Your task to perform on an android device: turn on wifi Image 0: 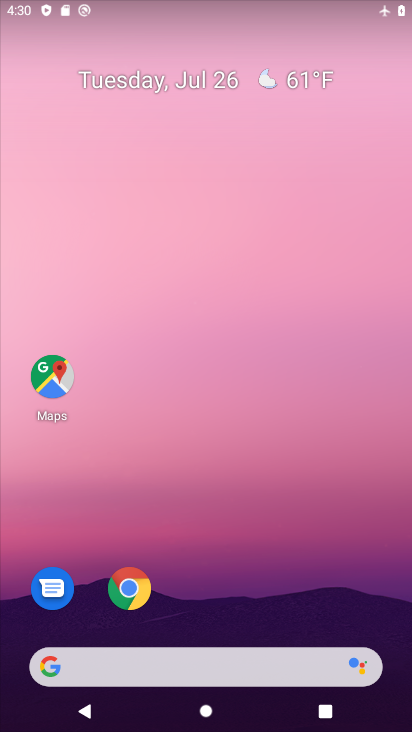
Step 0: drag from (253, 595) to (315, 83)
Your task to perform on an android device: turn on wifi Image 1: 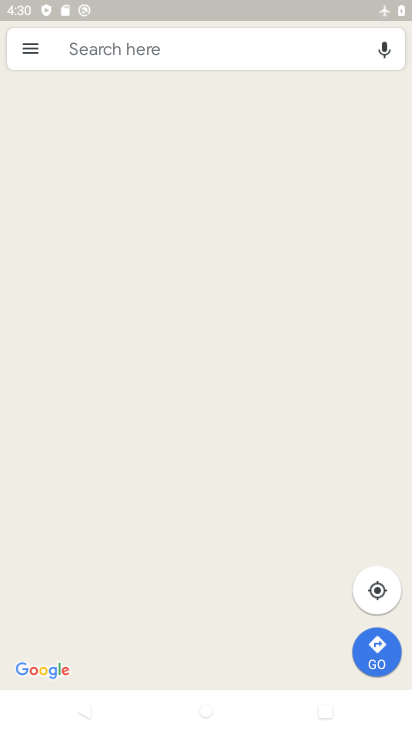
Step 1: press home button
Your task to perform on an android device: turn on wifi Image 2: 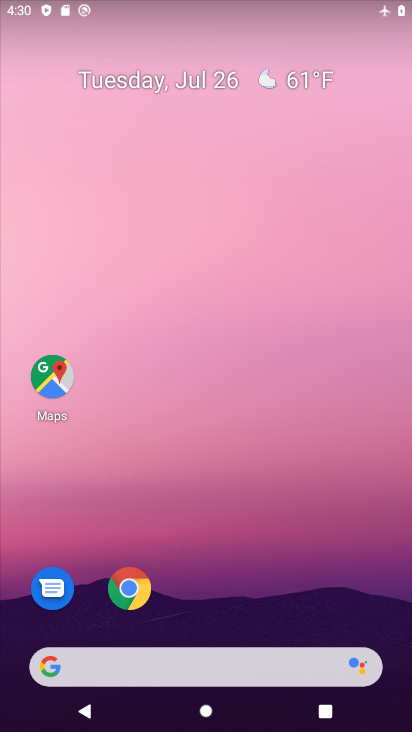
Step 2: drag from (252, 489) to (259, 10)
Your task to perform on an android device: turn on wifi Image 3: 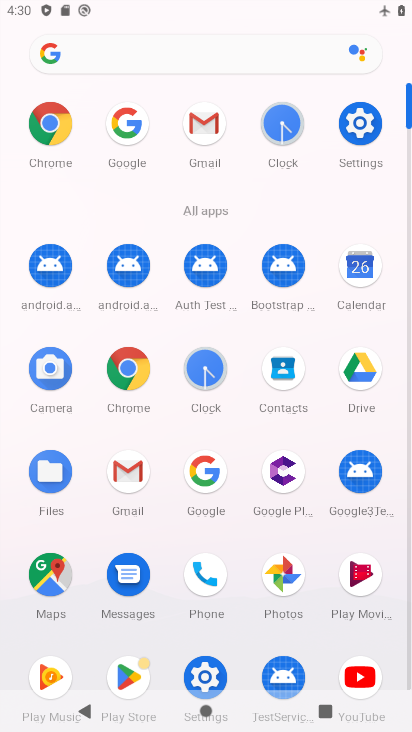
Step 3: click (363, 124)
Your task to perform on an android device: turn on wifi Image 4: 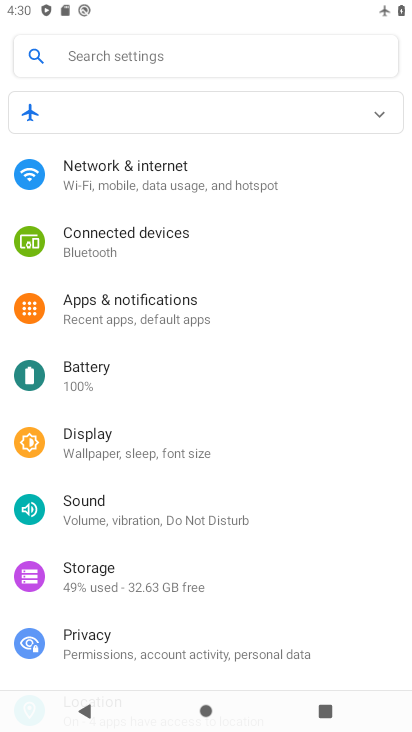
Step 4: click (135, 167)
Your task to perform on an android device: turn on wifi Image 5: 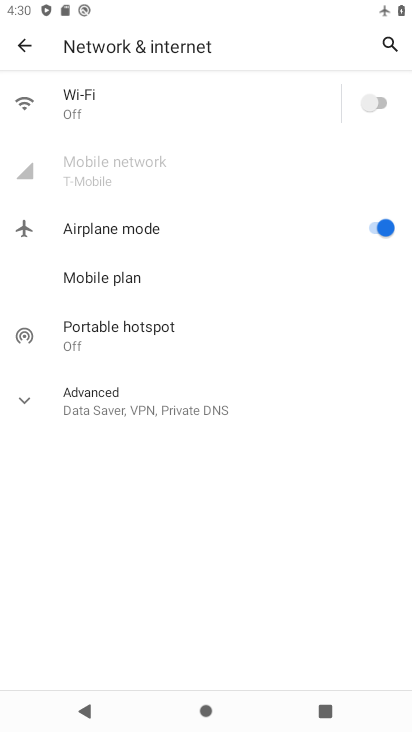
Step 5: click (378, 103)
Your task to perform on an android device: turn on wifi Image 6: 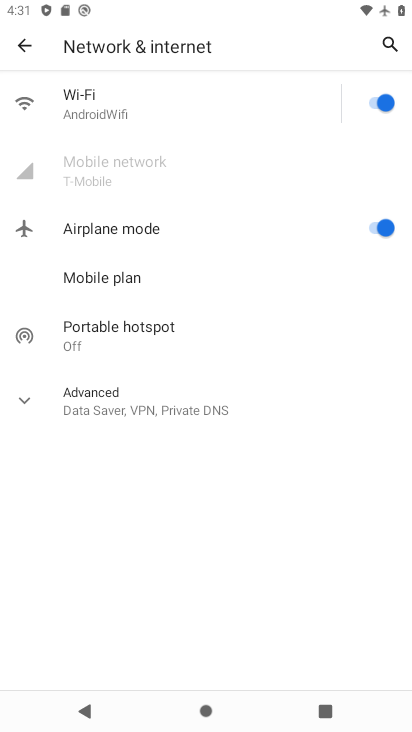
Step 6: task complete